Your task to perform on an android device: open a new tab in the chrome app Image 0: 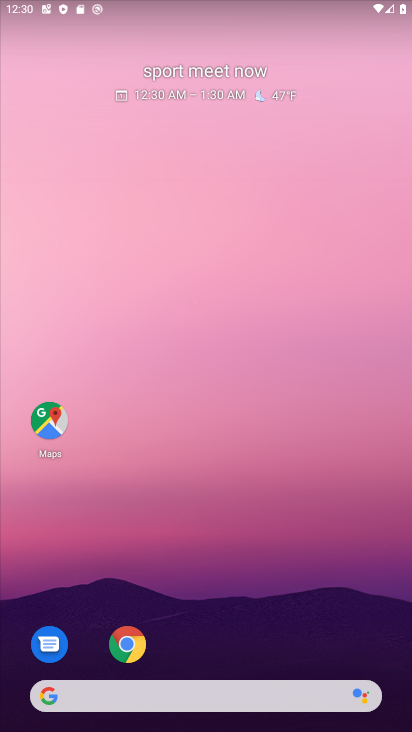
Step 0: click (133, 648)
Your task to perform on an android device: open a new tab in the chrome app Image 1: 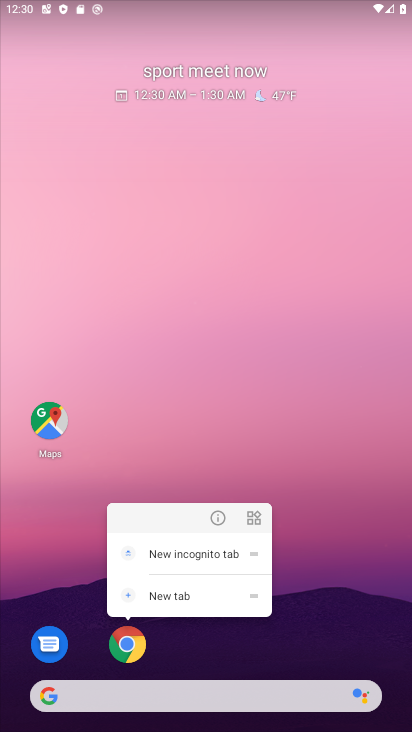
Step 1: click (131, 644)
Your task to perform on an android device: open a new tab in the chrome app Image 2: 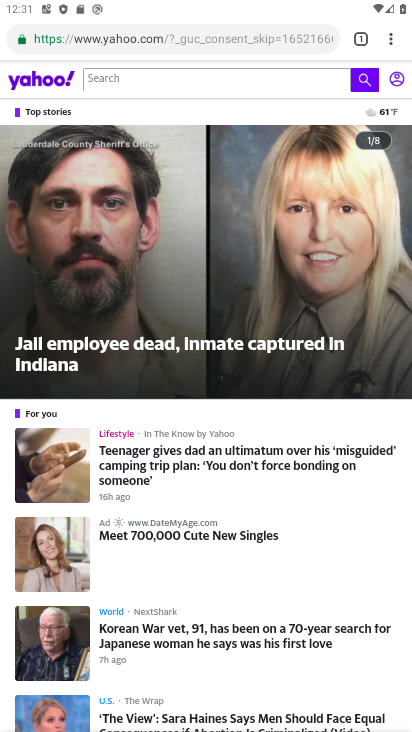
Step 2: click (361, 35)
Your task to perform on an android device: open a new tab in the chrome app Image 3: 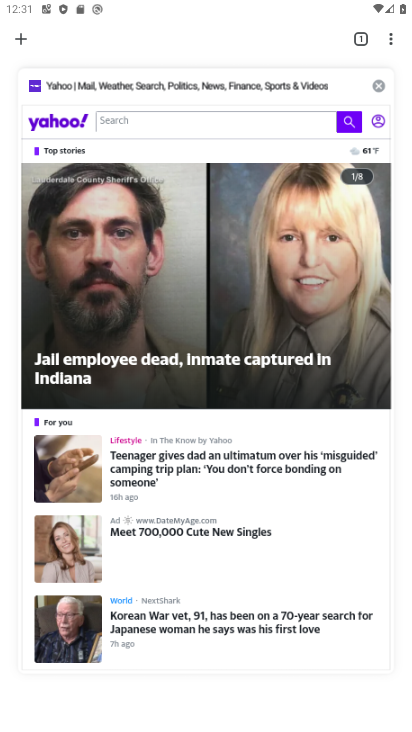
Step 3: click (20, 37)
Your task to perform on an android device: open a new tab in the chrome app Image 4: 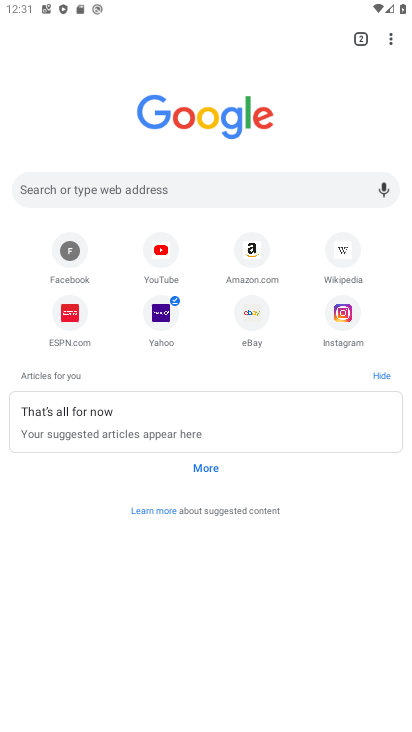
Step 4: task complete